Your task to perform on an android device: change timer sound Image 0: 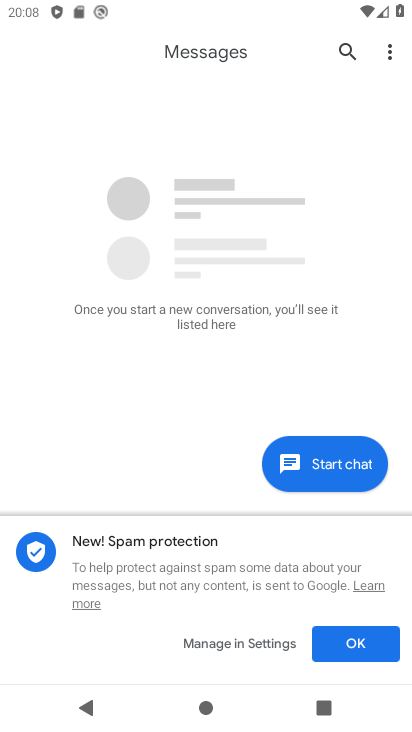
Step 0: press home button
Your task to perform on an android device: change timer sound Image 1: 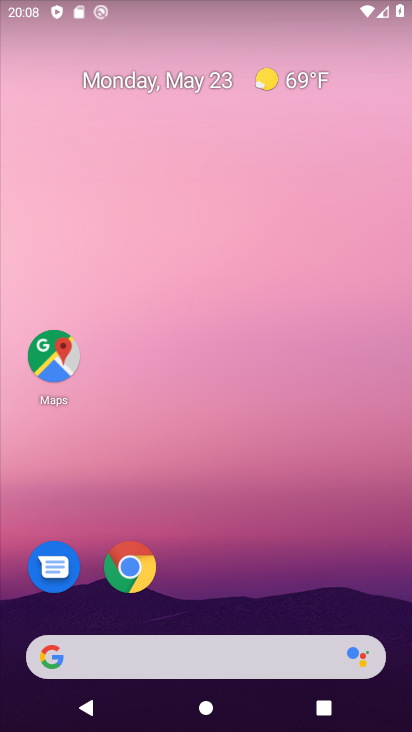
Step 1: drag from (185, 600) to (295, 69)
Your task to perform on an android device: change timer sound Image 2: 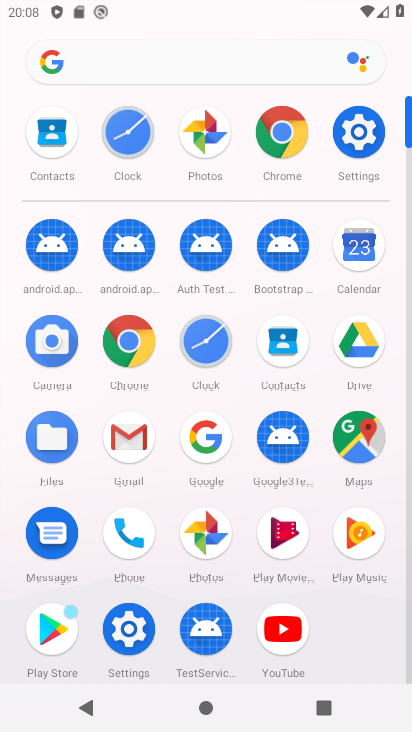
Step 2: click (215, 356)
Your task to perform on an android device: change timer sound Image 3: 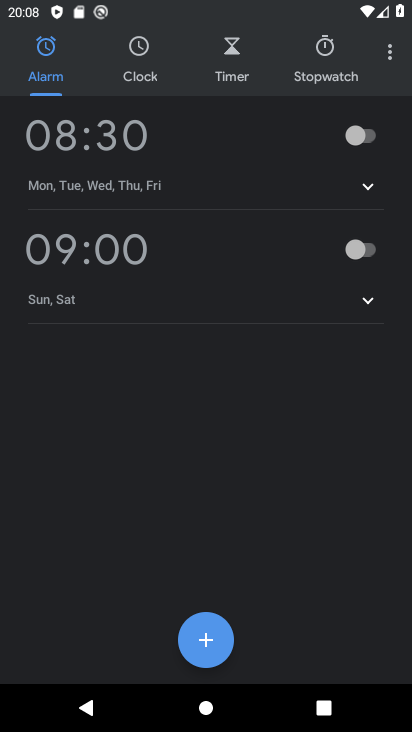
Step 3: click (391, 44)
Your task to perform on an android device: change timer sound Image 4: 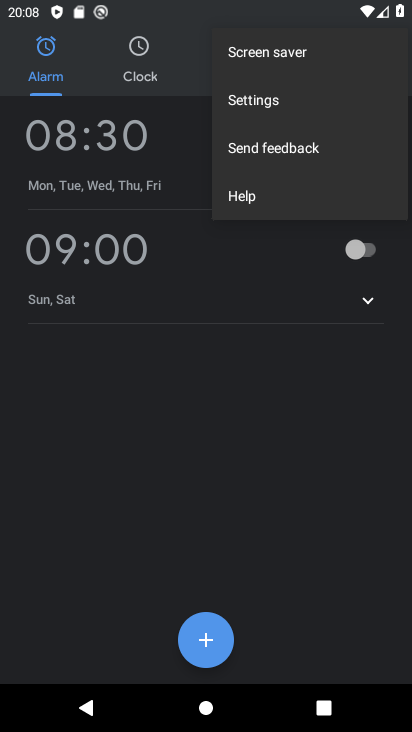
Step 4: click (258, 106)
Your task to perform on an android device: change timer sound Image 5: 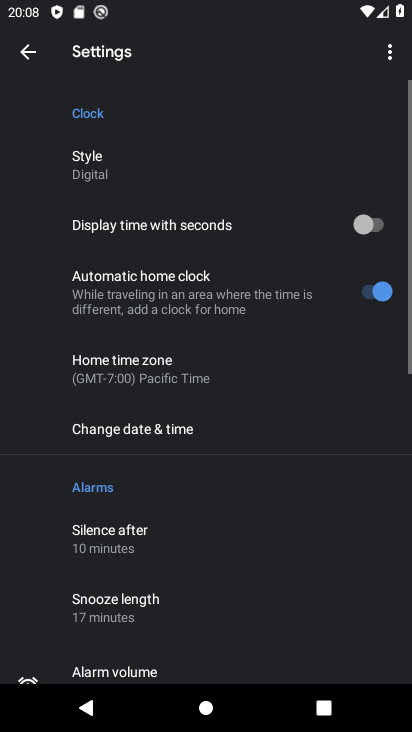
Step 5: drag from (183, 512) to (249, 184)
Your task to perform on an android device: change timer sound Image 6: 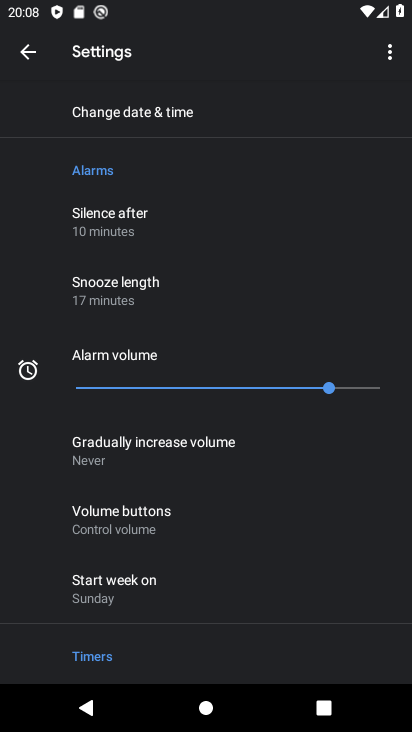
Step 6: drag from (172, 540) to (214, 259)
Your task to perform on an android device: change timer sound Image 7: 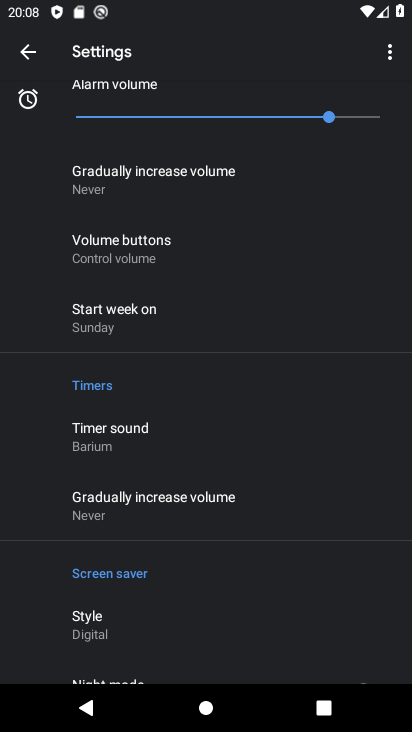
Step 7: click (152, 446)
Your task to perform on an android device: change timer sound Image 8: 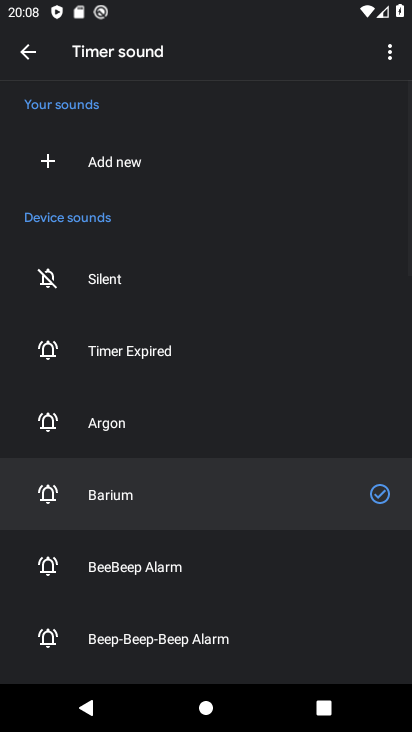
Step 8: click (137, 430)
Your task to perform on an android device: change timer sound Image 9: 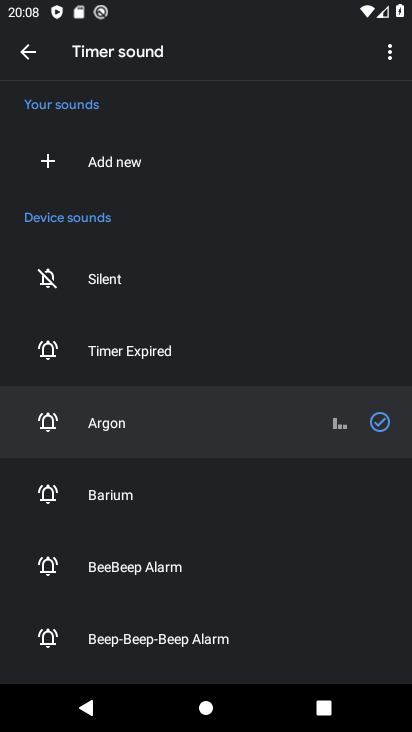
Step 9: task complete